Your task to perform on an android device: Open settings on Google Maps Image 0: 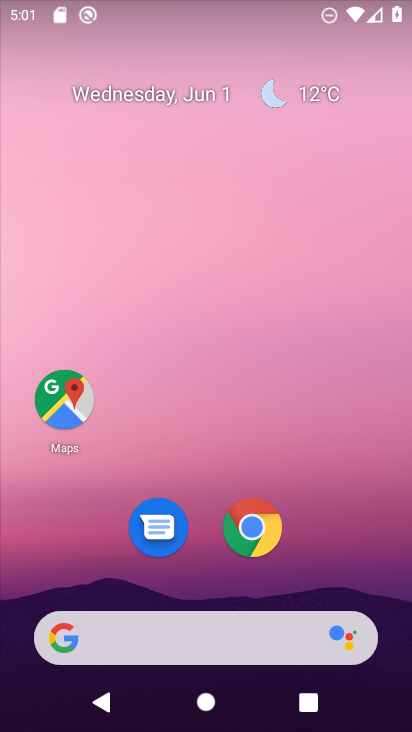
Step 0: click (66, 397)
Your task to perform on an android device: Open settings on Google Maps Image 1: 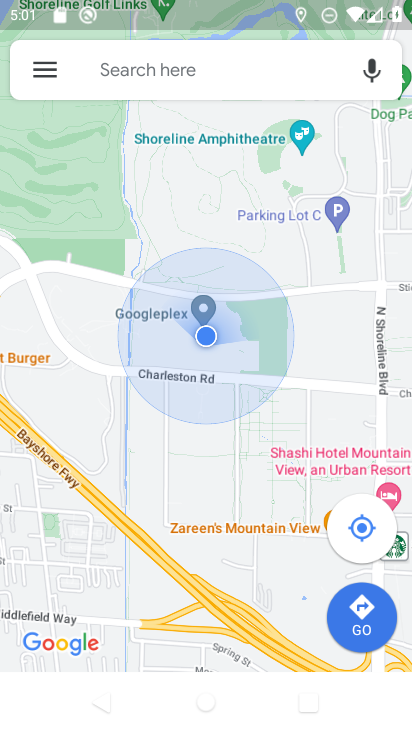
Step 1: task complete